Your task to perform on an android device: Open Google Chrome and open the bookmarks view Image 0: 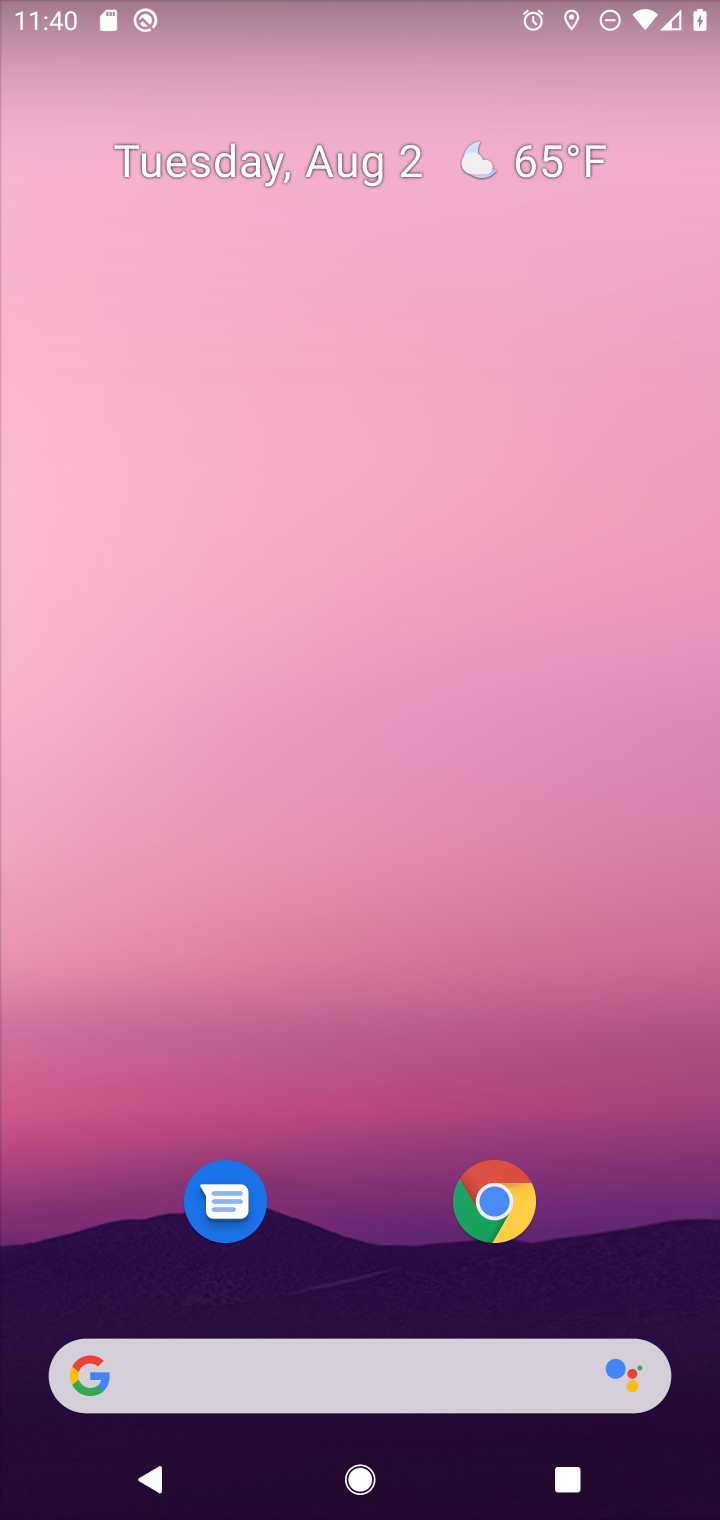
Step 0: click (493, 1201)
Your task to perform on an android device: Open Google Chrome and open the bookmarks view Image 1: 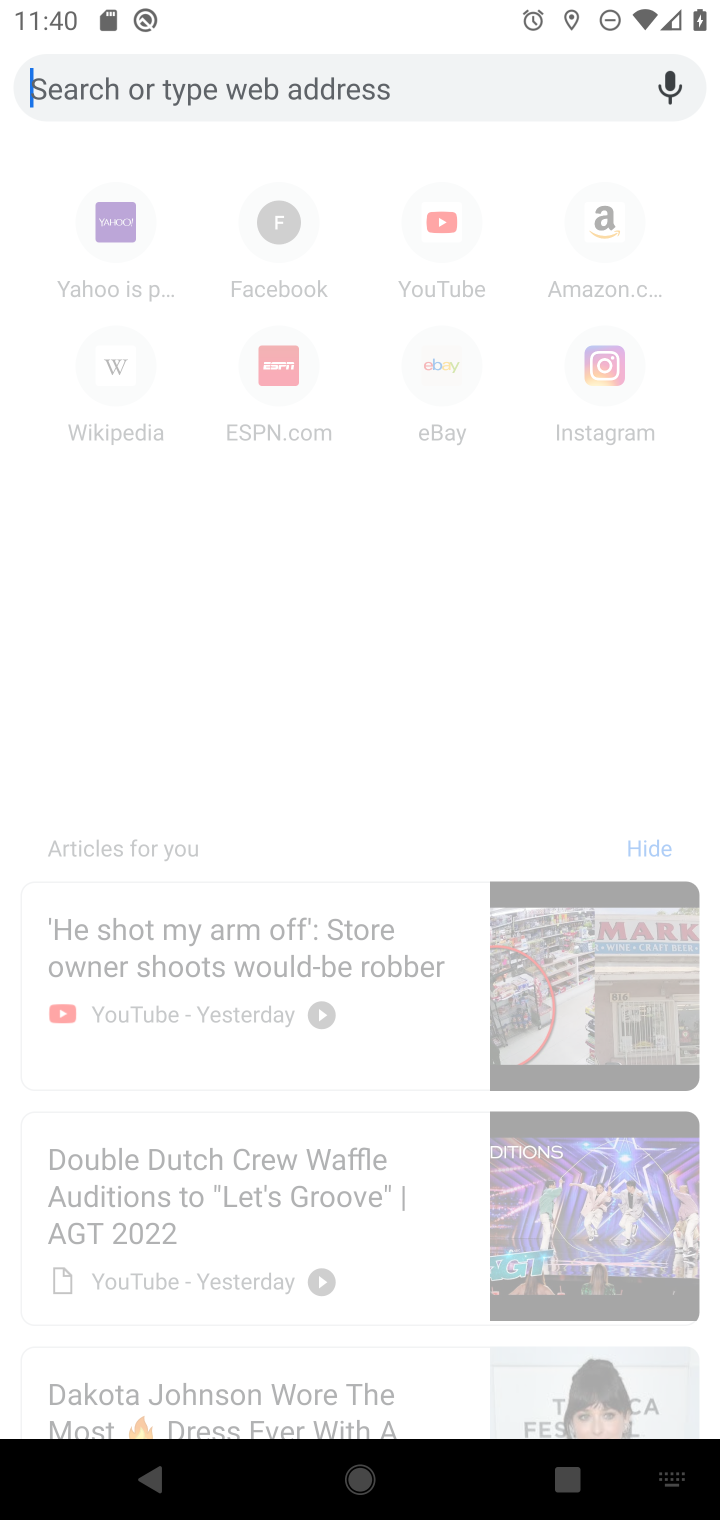
Step 1: click (410, 757)
Your task to perform on an android device: Open Google Chrome and open the bookmarks view Image 2: 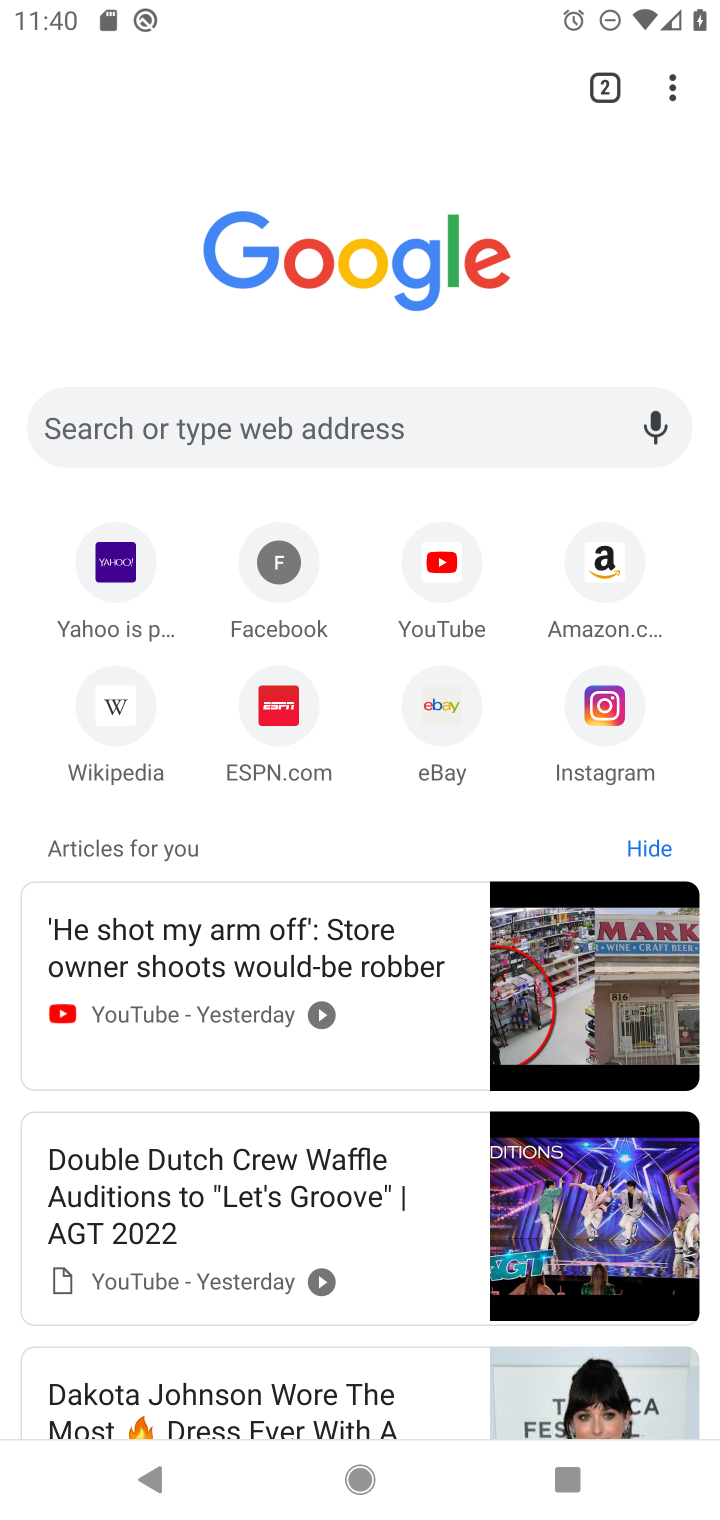
Step 2: drag from (673, 86) to (368, 327)
Your task to perform on an android device: Open Google Chrome and open the bookmarks view Image 3: 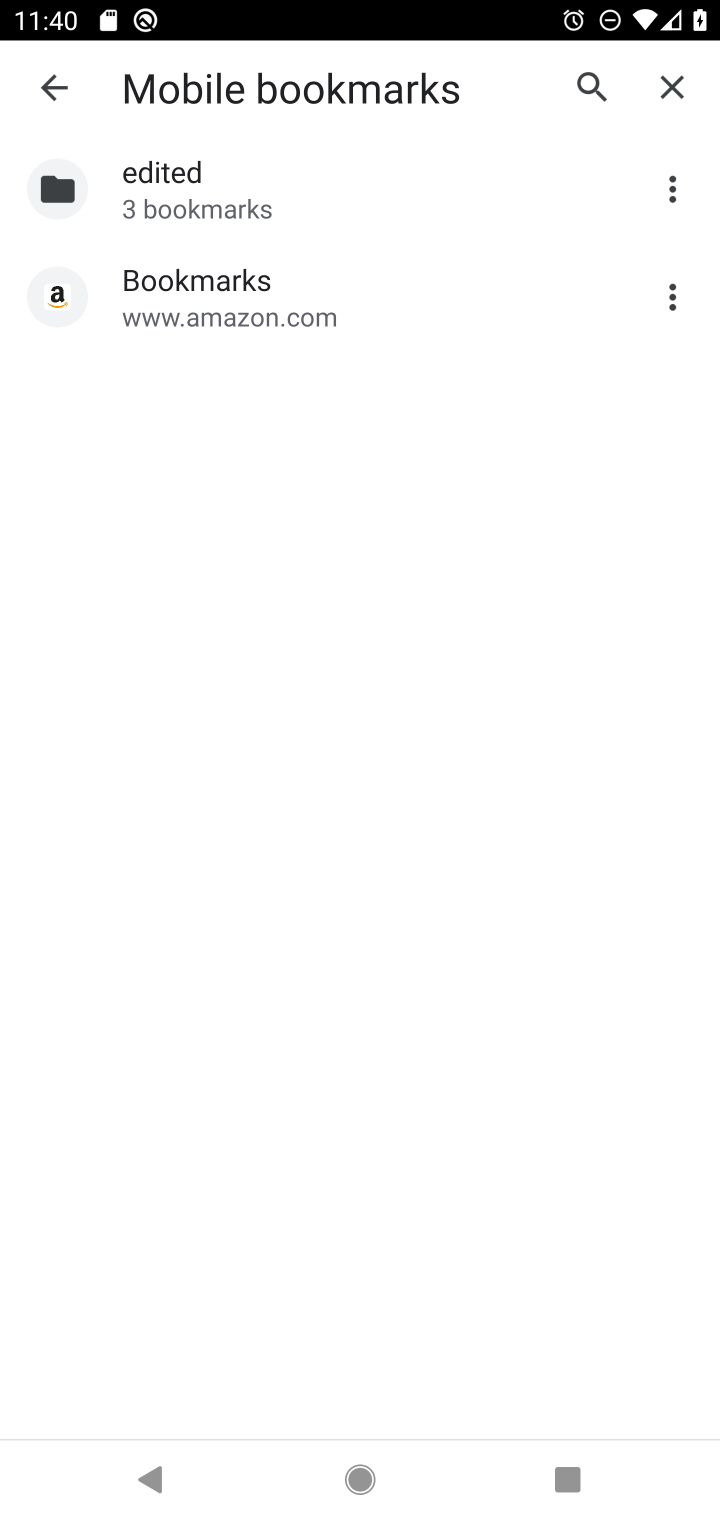
Step 3: click (264, 317)
Your task to perform on an android device: Open Google Chrome and open the bookmarks view Image 4: 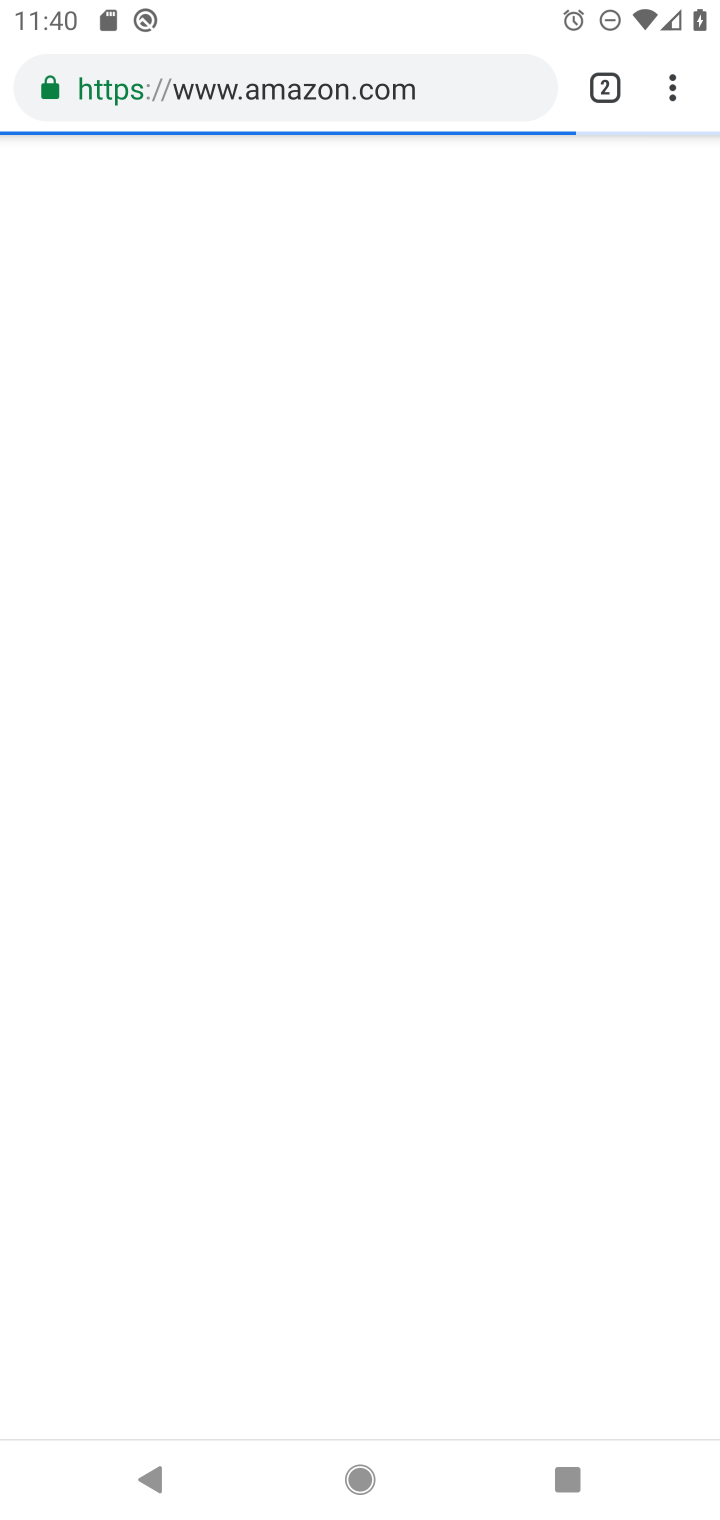
Step 4: task complete